Your task to perform on an android device: move an email to a new category in the gmail app Image 0: 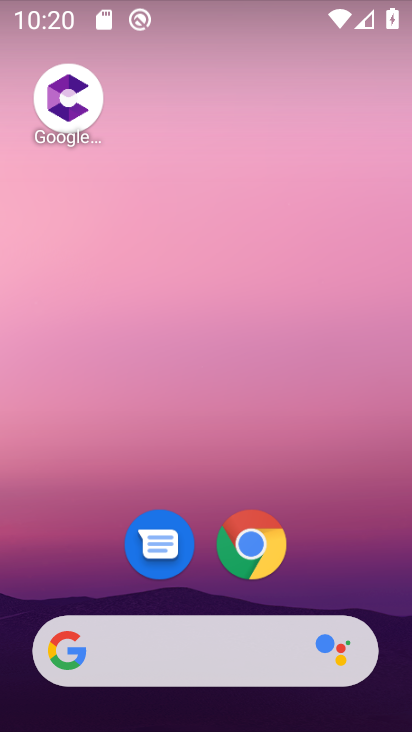
Step 0: drag from (211, 582) to (236, 3)
Your task to perform on an android device: move an email to a new category in the gmail app Image 1: 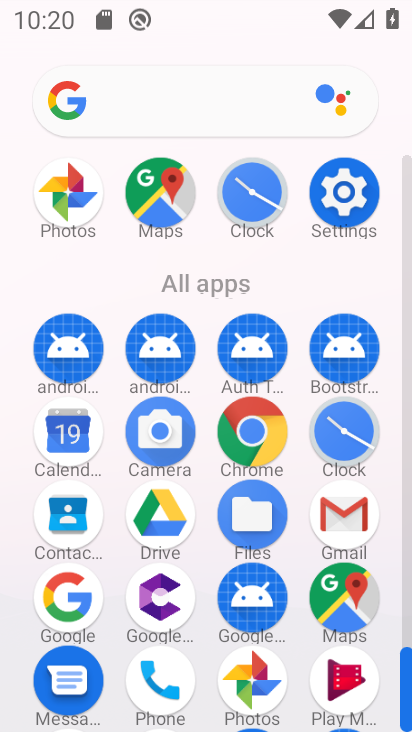
Step 1: click (356, 508)
Your task to perform on an android device: move an email to a new category in the gmail app Image 2: 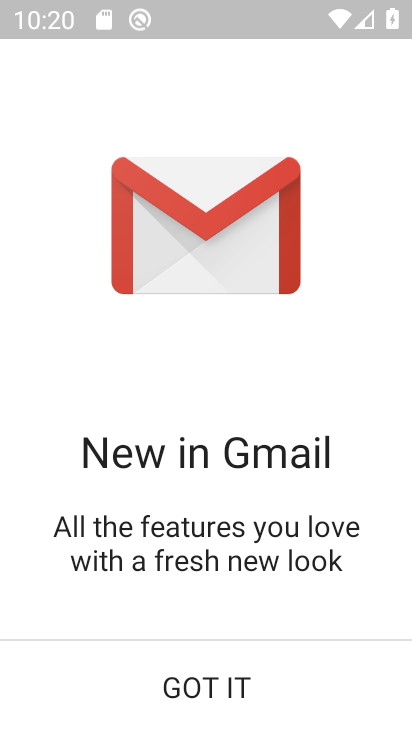
Step 2: click (204, 685)
Your task to perform on an android device: move an email to a new category in the gmail app Image 3: 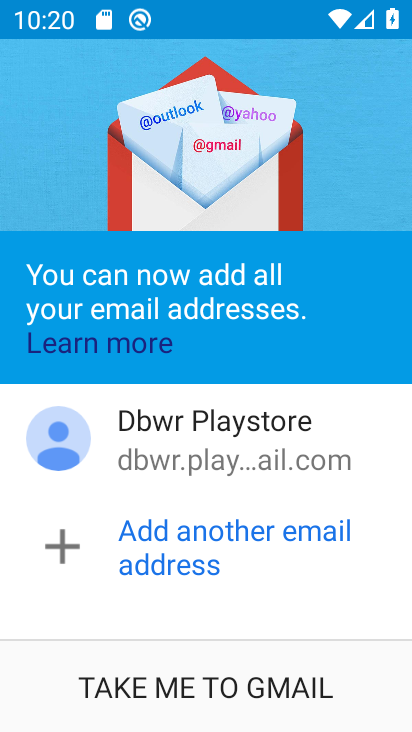
Step 3: click (206, 682)
Your task to perform on an android device: move an email to a new category in the gmail app Image 4: 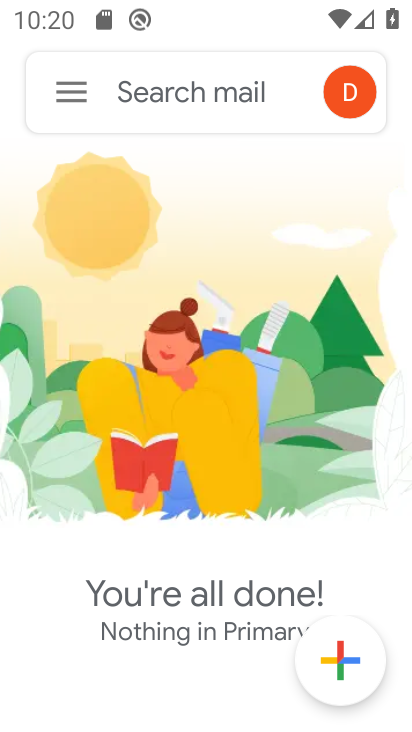
Step 4: click (67, 85)
Your task to perform on an android device: move an email to a new category in the gmail app Image 5: 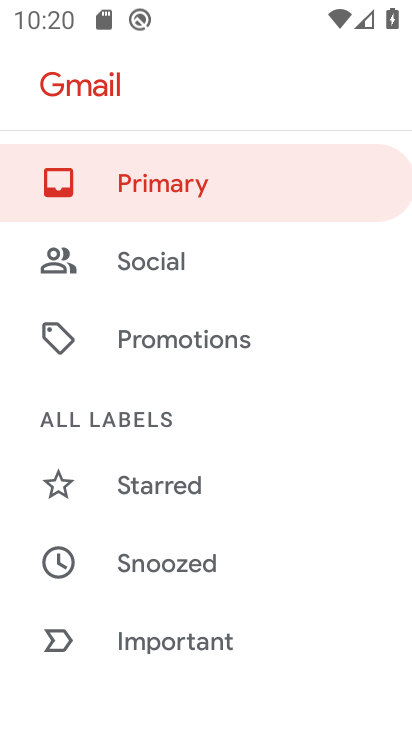
Step 5: drag from (112, 588) to (178, 278)
Your task to perform on an android device: move an email to a new category in the gmail app Image 6: 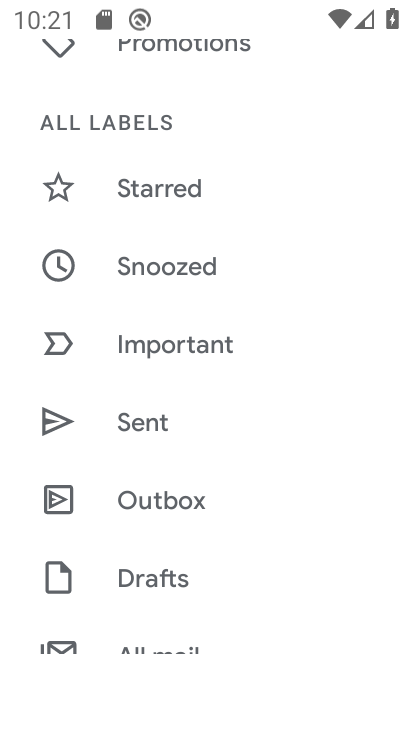
Step 6: drag from (171, 601) to (228, 357)
Your task to perform on an android device: move an email to a new category in the gmail app Image 7: 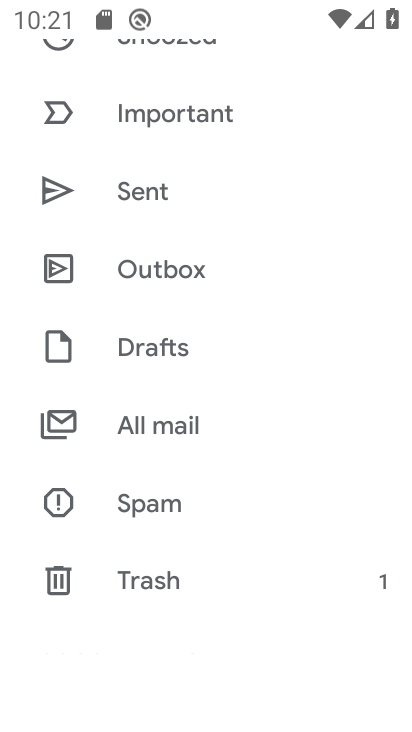
Step 7: click (186, 456)
Your task to perform on an android device: move an email to a new category in the gmail app Image 8: 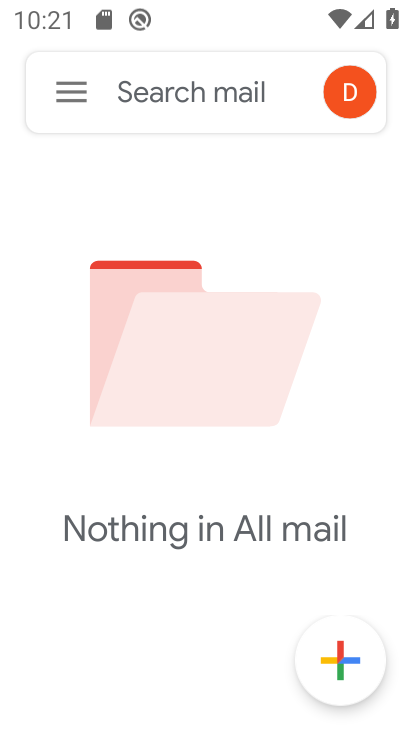
Step 8: task complete